Your task to perform on an android device: show emergency info Image 0: 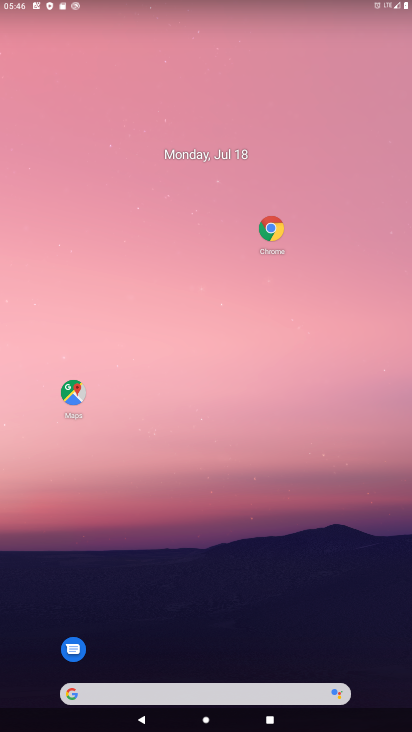
Step 0: drag from (233, 664) to (221, 185)
Your task to perform on an android device: show emergency info Image 1: 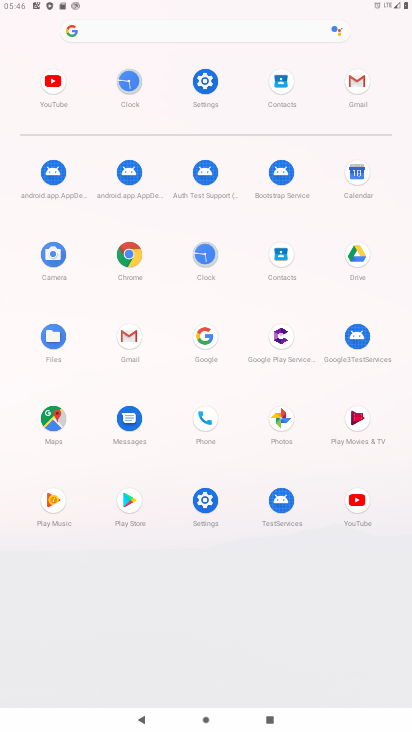
Step 1: click (199, 514)
Your task to perform on an android device: show emergency info Image 2: 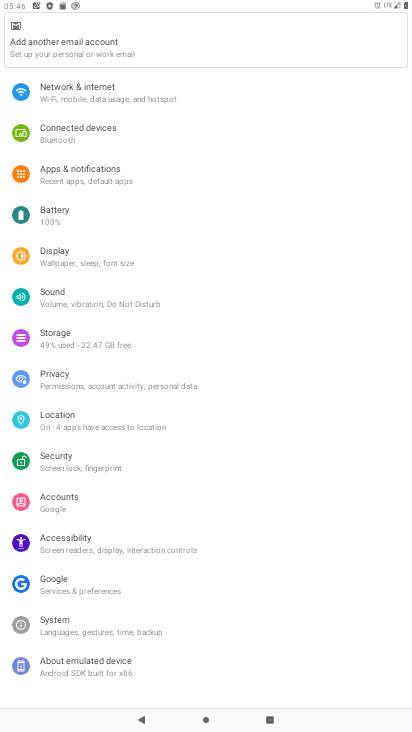
Step 2: click (130, 681)
Your task to perform on an android device: show emergency info Image 3: 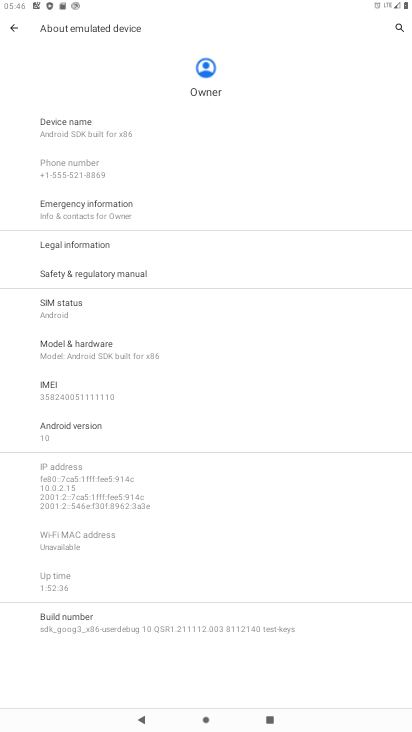
Step 3: click (97, 213)
Your task to perform on an android device: show emergency info Image 4: 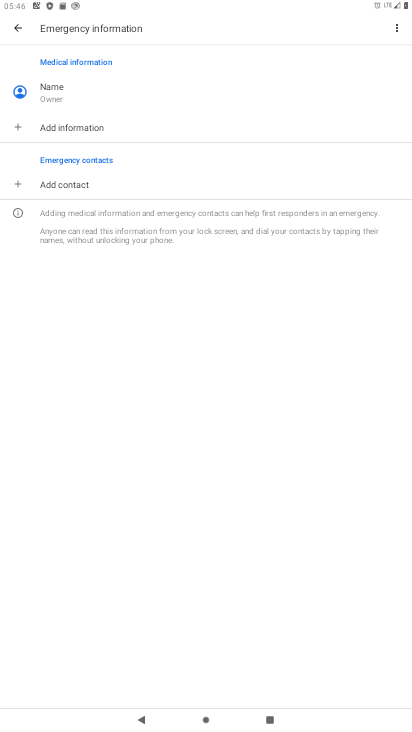
Step 4: task complete